Your task to perform on an android device: turn on priority inbox in the gmail app Image 0: 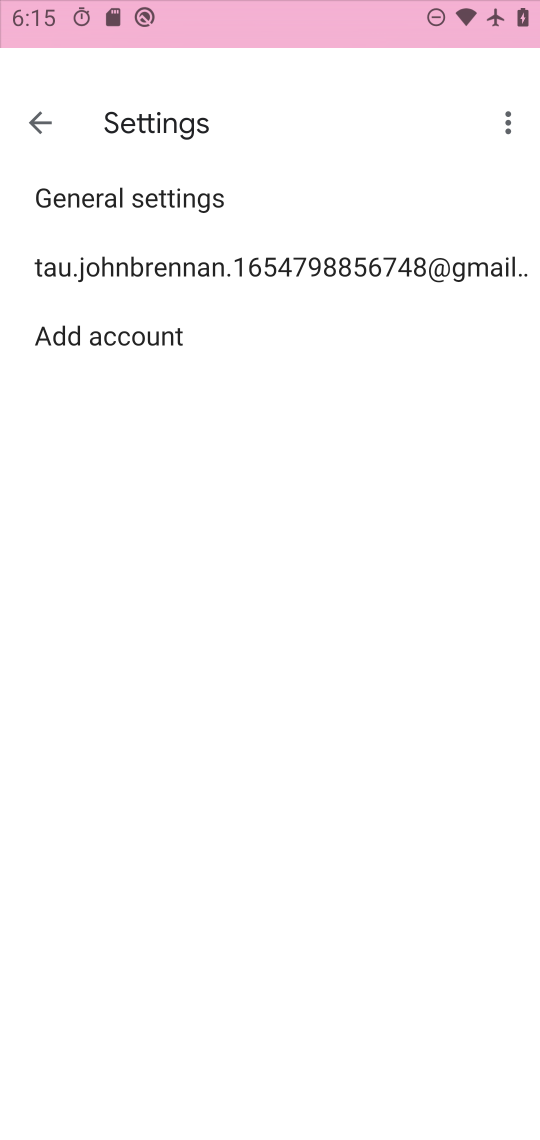
Step 0: press home button
Your task to perform on an android device: turn on priority inbox in the gmail app Image 1: 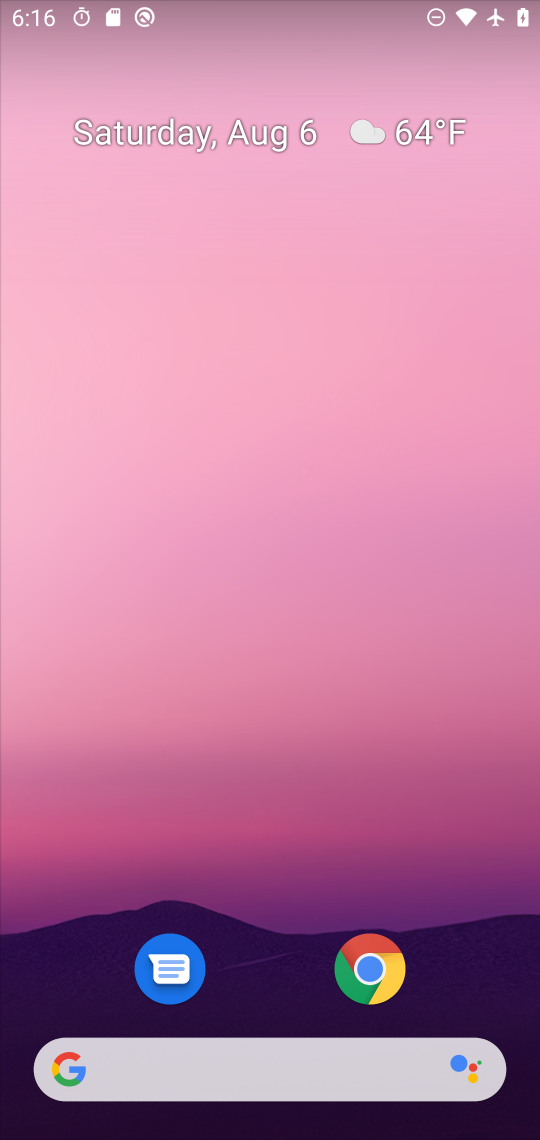
Step 1: drag from (269, 1011) to (179, 383)
Your task to perform on an android device: turn on priority inbox in the gmail app Image 2: 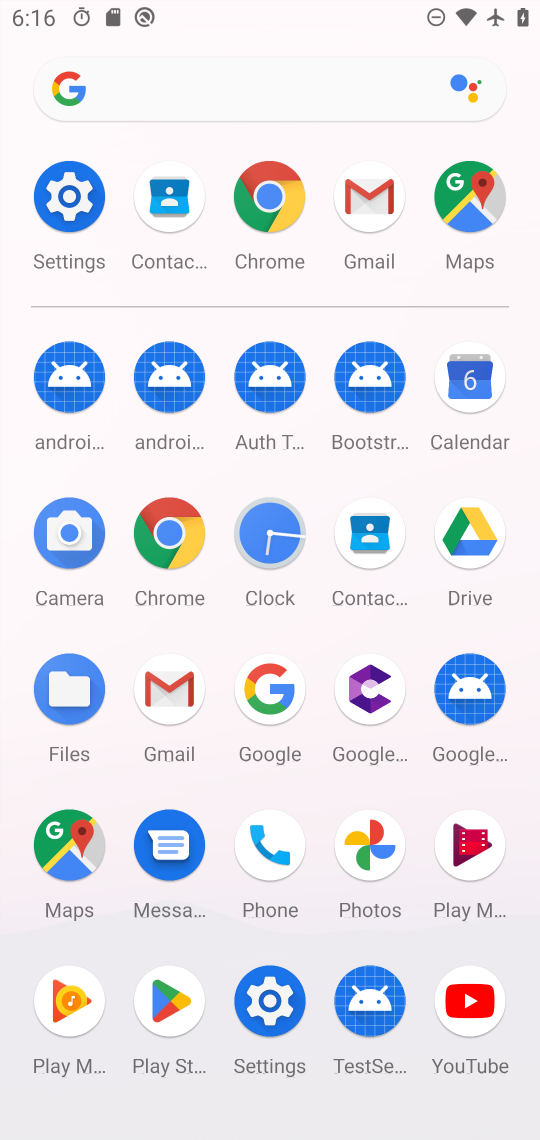
Step 2: click (364, 218)
Your task to perform on an android device: turn on priority inbox in the gmail app Image 3: 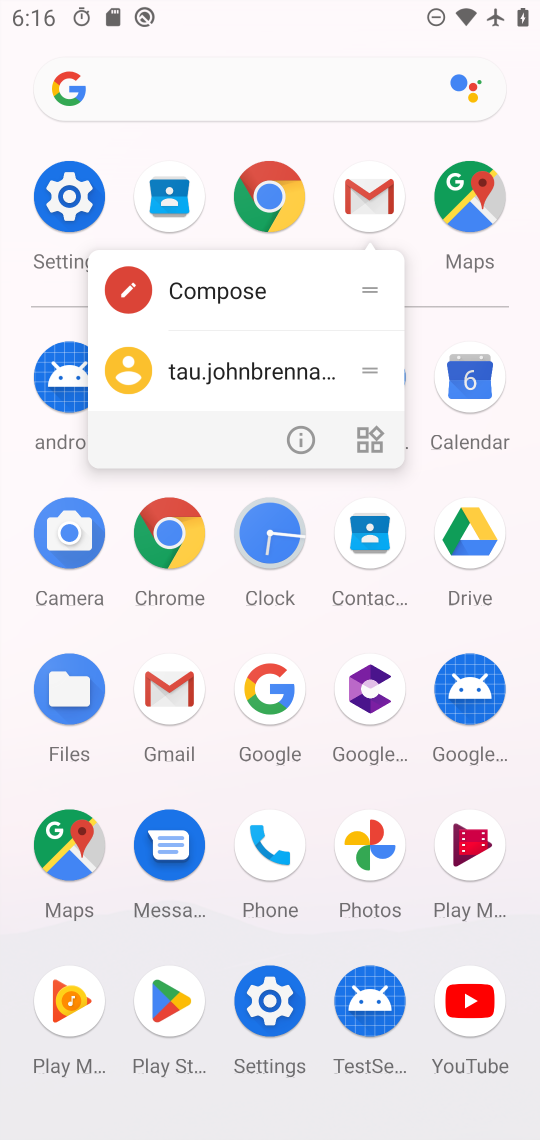
Step 3: click (362, 222)
Your task to perform on an android device: turn on priority inbox in the gmail app Image 4: 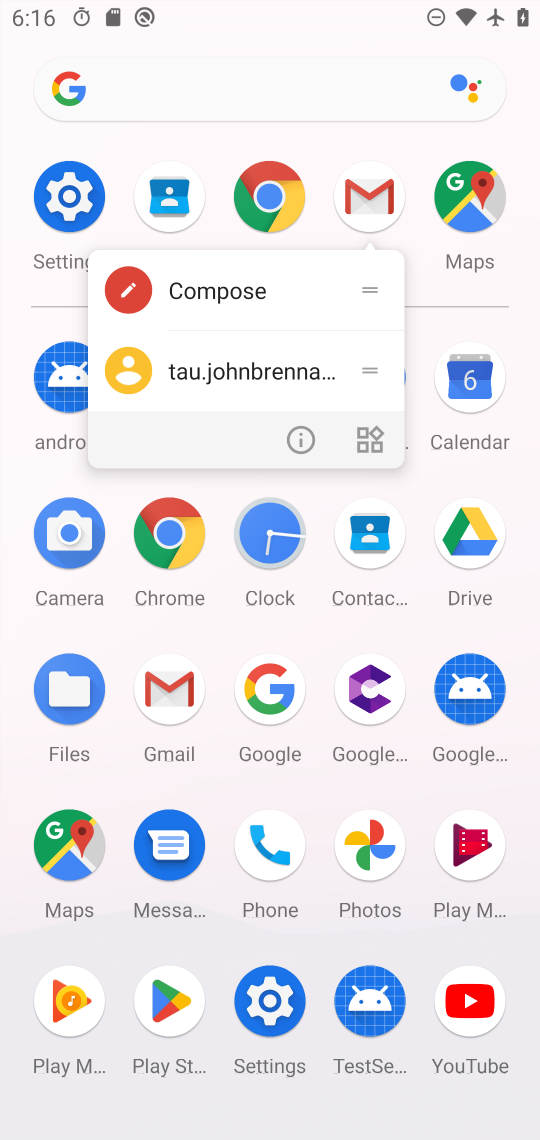
Step 4: click (362, 195)
Your task to perform on an android device: turn on priority inbox in the gmail app Image 5: 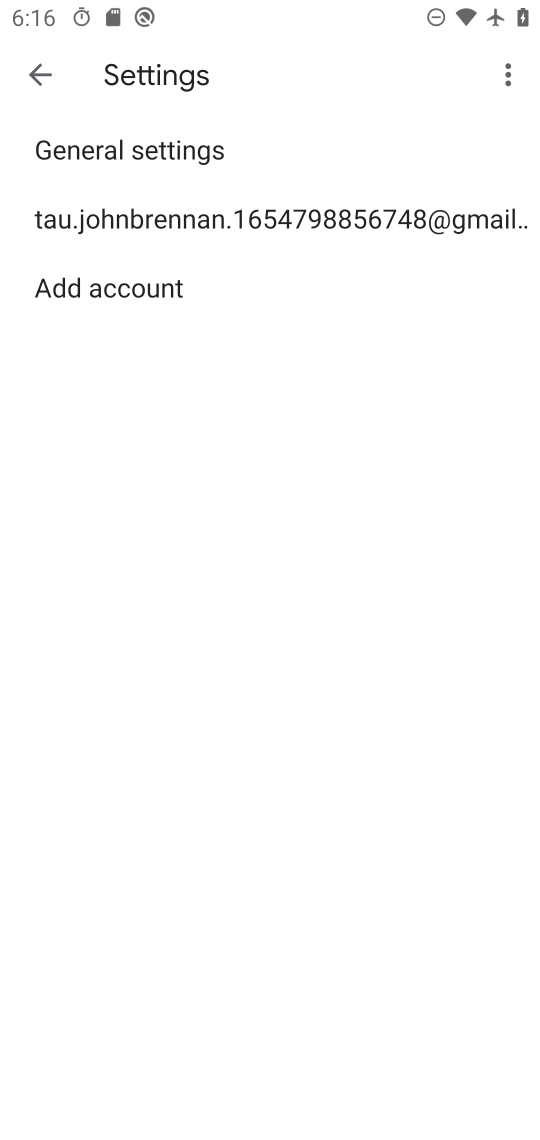
Step 5: click (176, 216)
Your task to perform on an android device: turn on priority inbox in the gmail app Image 6: 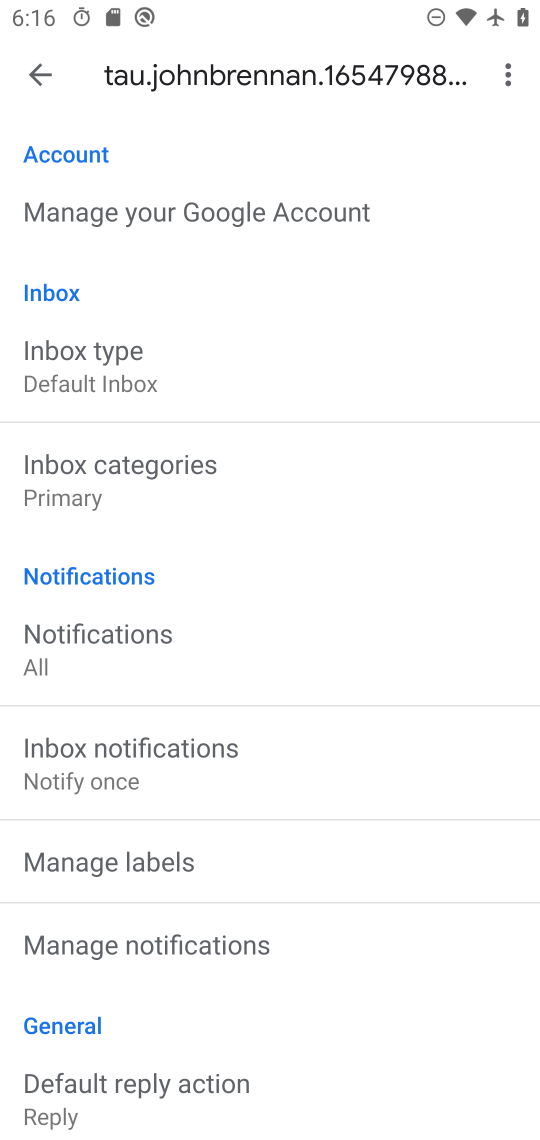
Step 6: click (135, 370)
Your task to perform on an android device: turn on priority inbox in the gmail app Image 7: 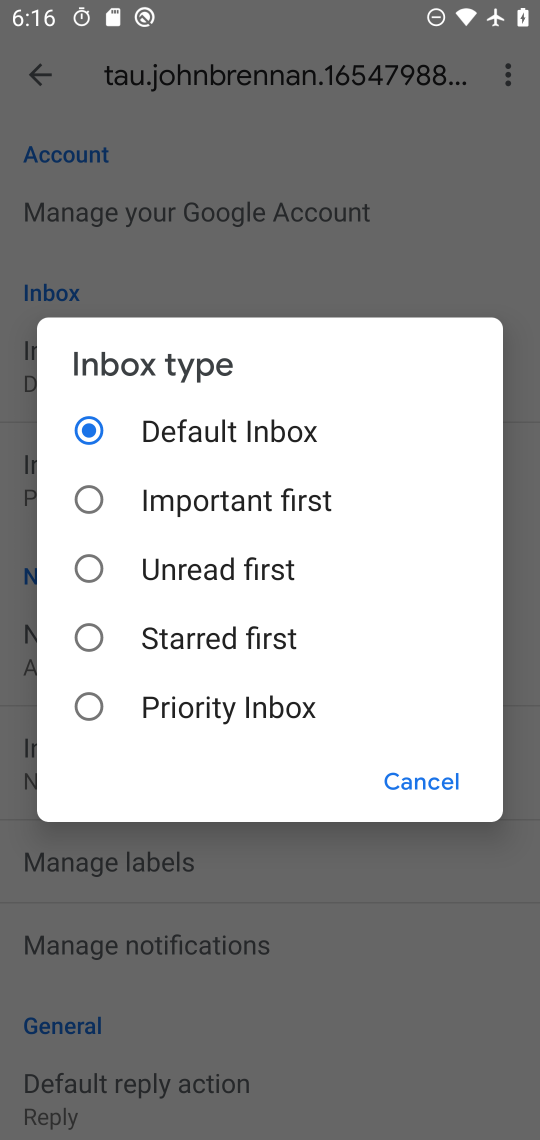
Step 7: click (97, 711)
Your task to perform on an android device: turn on priority inbox in the gmail app Image 8: 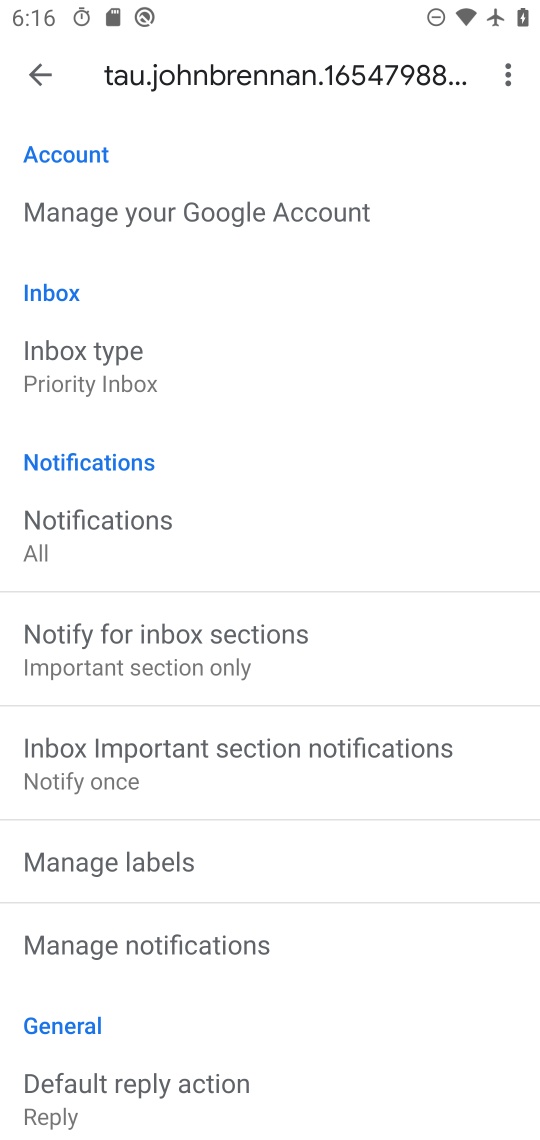
Step 8: task complete